Your task to perform on an android device: View the shopping cart on newegg. Search for asus zenbook on newegg, select the first entry, and add it to the cart. Image 0: 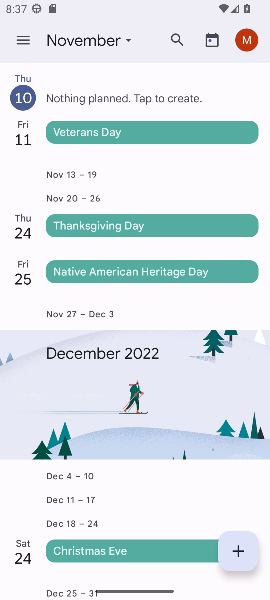
Step 0: press home button
Your task to perform on an android device: View the shopping cart on newegg. Search for asus zenbook on newegg, select the first entry, and add it to the cart. Image 1: 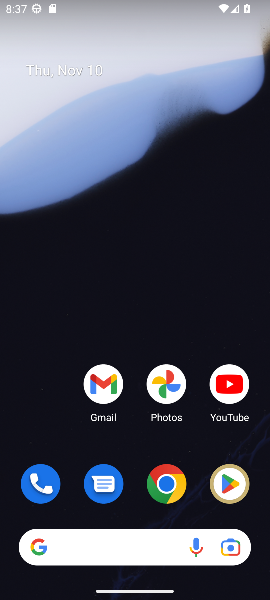
Step 1: click (163, 492)
Your task to perform on an android device: View the shopping cart on newegg. Search for asus zenbook on newegg, select the first entry, and add it to the cart. Image 2: 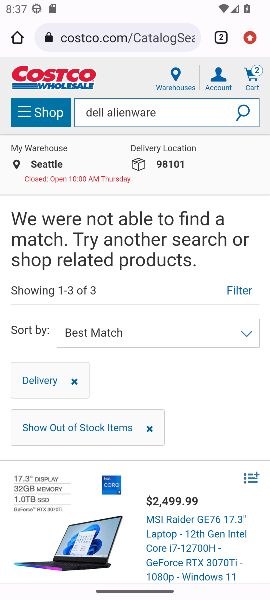
Step 2: click (141, 34)
Your task to perform on an android device: View the shopping cart on newegg. Search for asus zenbook on newegg, select the first entry, and add it to the cart. Image 3: 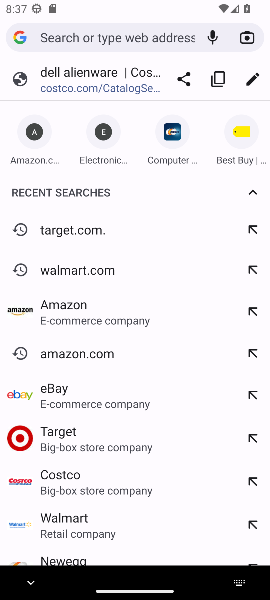
Step 3: type "newegg.com"
Your task to perform on an android device: View the shopping cart on newegg. Search for asus zenbook on newegg, select the first entry, and add it to the cart. Image 4: 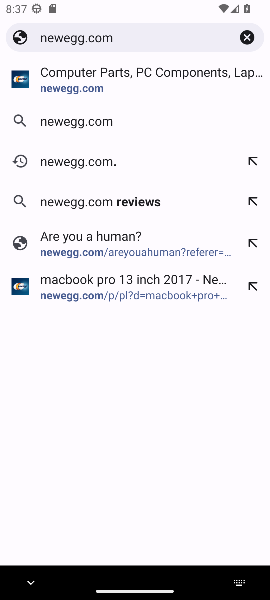
Step 4: click (65, 82)
Your task to perform on an android device: View the shopping cart on newegg. Search for asus zenbook on newegg, select the first entry, and add it to the cart. Image 5: 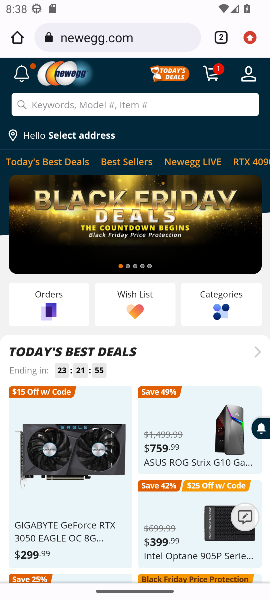
Step 5: click (213, 77)
Your task to perform on an android device: View the shopping cart on newegg. Search for asus zenbook on newegg, select the first entry, and add it to the cart. Image 6: 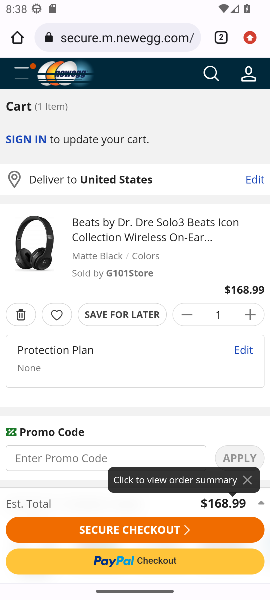
Step 6: click (207, 75)
Your task to perform on an android device: View the shopping cart on newegg. Search for asus zenbook on newegg, select the first entry, and add it to the cart. Image 7: 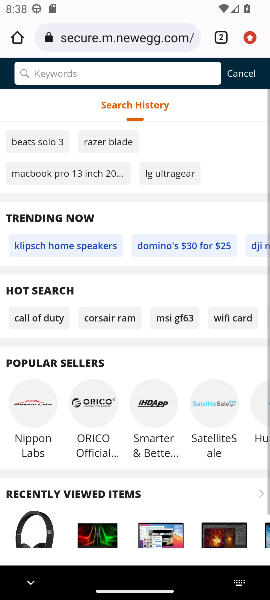
Step 7: type "asus zenbook"
Your task to perform on an android device: View the shopping cart on newegg. Search for asus zenbook on newegg, select the first entry, and add it to the cart. Image 8: 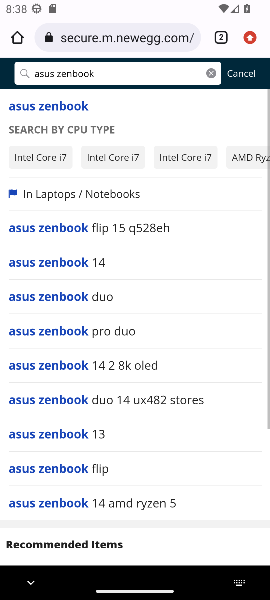
Step 8: click (50, 108)
Your task to perform on an android device: View the shopping cart on newegg. Search for asus zenbook on newegg, select the first entry, and add it to the cart. Image 9: 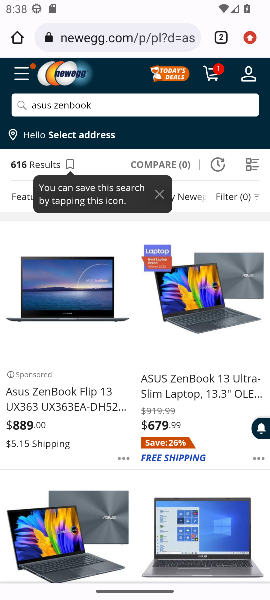
Step 9: click (56, 327)
Your task to perform on an android device: View the shopping cart on newegg. Search for asus zenbook on newegg, select the first entry, and add it to the cart. Image 10: 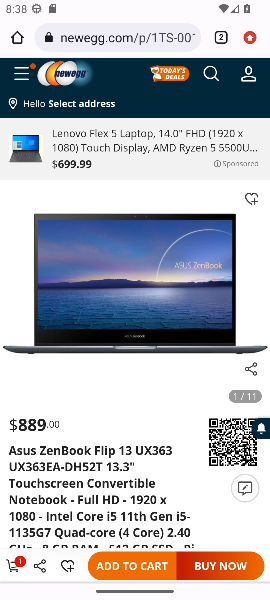
Step 10: click (134, 572)
Your task to perform on an android device: View the shopping cart on newegg. Search for asus zenbook on newegg, select the first entry, and add it to the cart. Image 11: 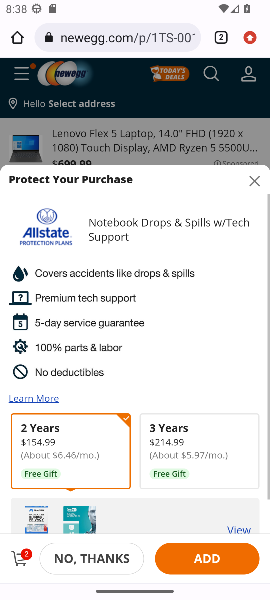
Step 11: task complete